Your task to perform on an android device: turn on the 24-hour format for clock Image 0: 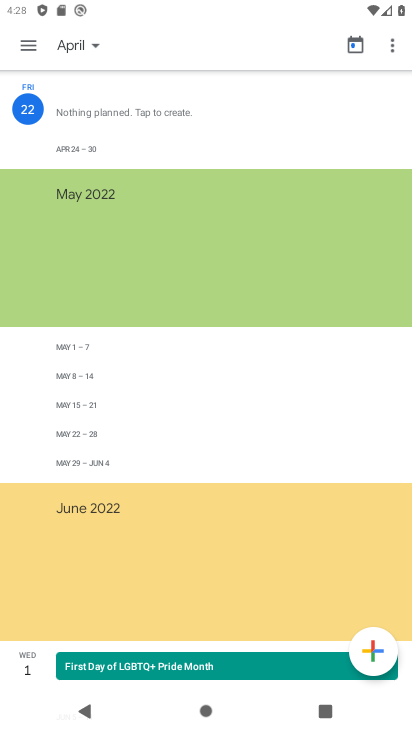
Step 0: press home button
Your task to perform on an android device: turn on the 24-hour format for clock Image 1: 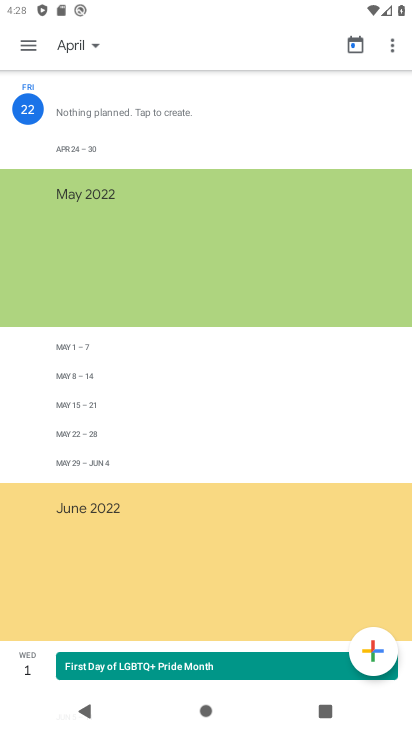
Step 1: press home button
Your task to perform on an android device: turn on the 24-hour format for clock Image 2: 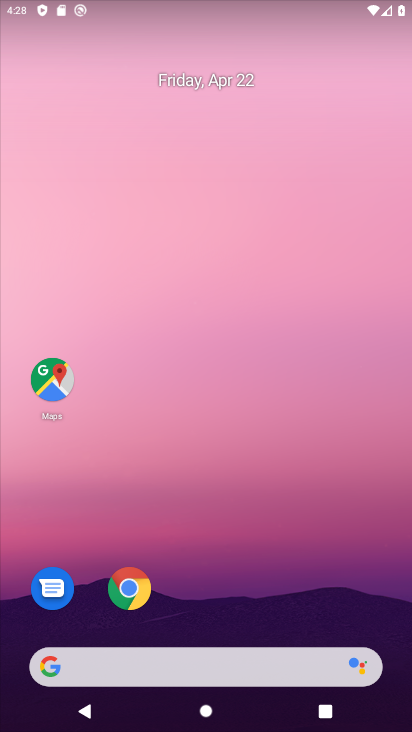
Step 2: drag from (261, 605) to (250, 79)
Your task to perform on an android device: turn on the 24-hour format for clock Image 3: 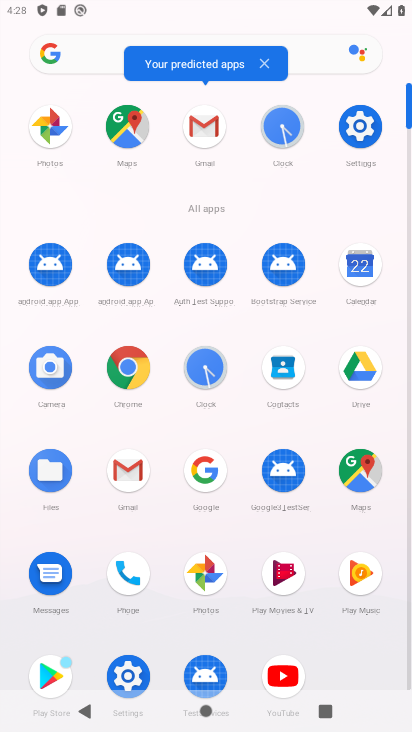
Step 3: click (285, 124)
Your task to perform on an android device: turn on the 24-hour format for clock Image 4: 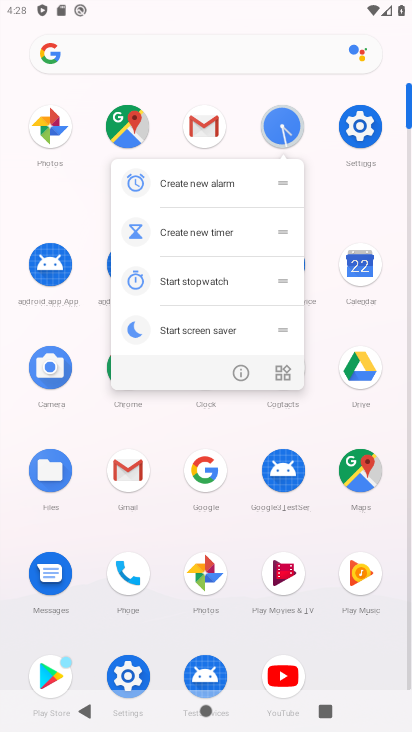
Step 4: click (276, 119)
Your task to perform on an android device: turn on the 24-hour format for clock Image 5: 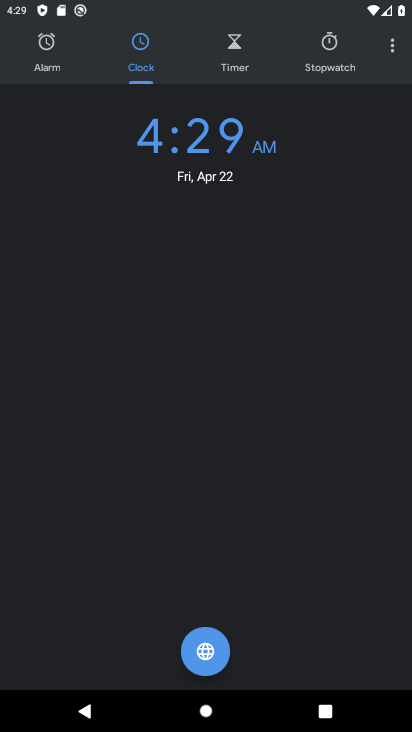
Step 5: click (396, 47)
Your task to perform on an android device: turn on the 24-hour format for clock Image 6: 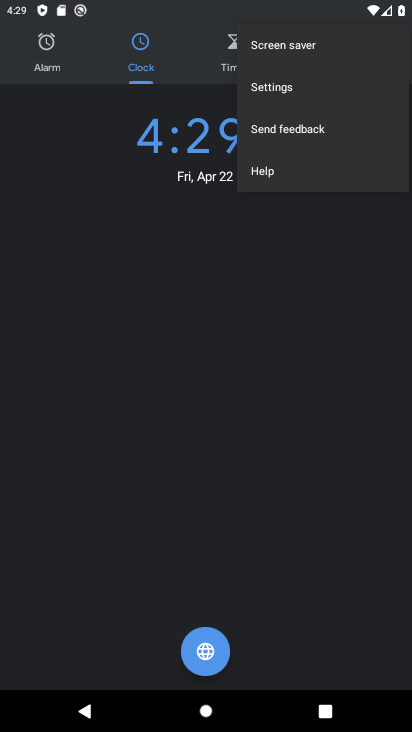
Step 6: click (311, 84)
Your task to perform on an android device: turn on the 24-hour format for clock Image 7: 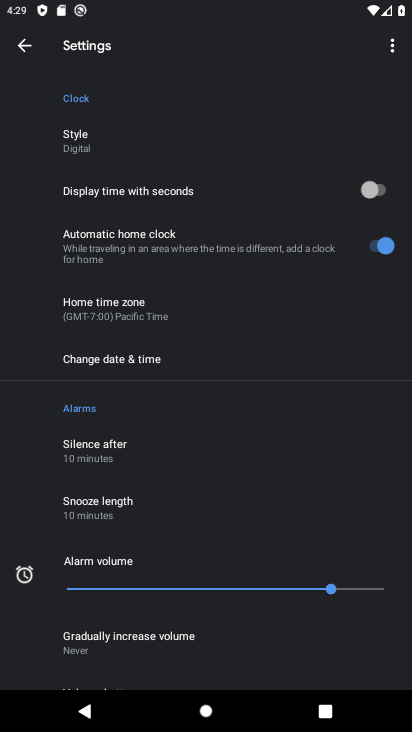
Step 7: click (140, 359)
Your task to perform on an android device: turn on the 24-hour format for clock Image 8: 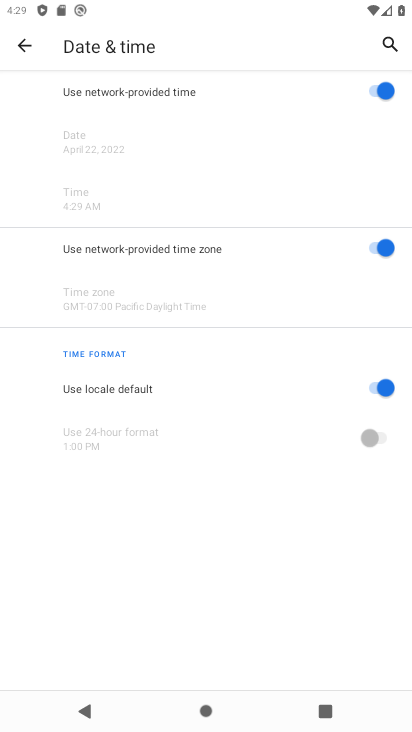
Step 8: click (383, 432)
Your task to perform on an android device: turn on the 24-hour format for clock Image 9: 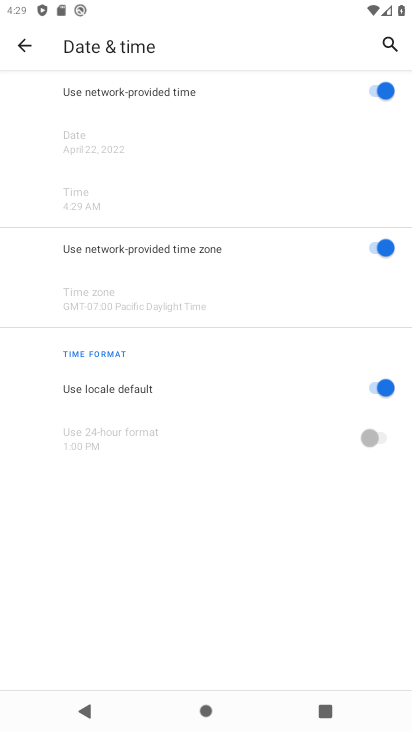
Step 9: click (375, 387)
Your task to perform on an android device: turn on the 24-hour format for clock Image 10: 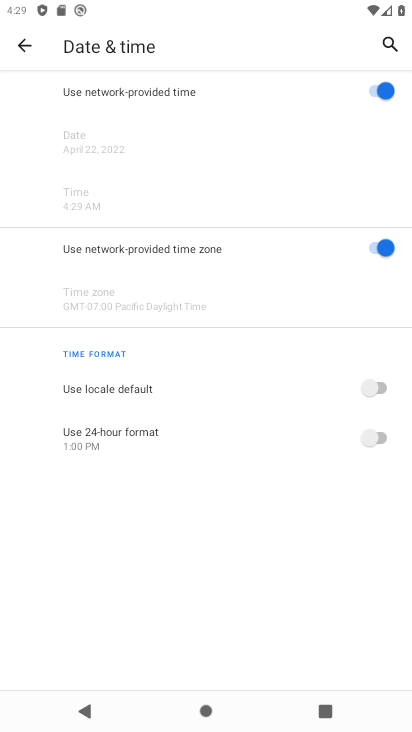
Step 10: click (378, 439)
Your task to perform on an android device: turn on the 24-hour format for clock Image 11: 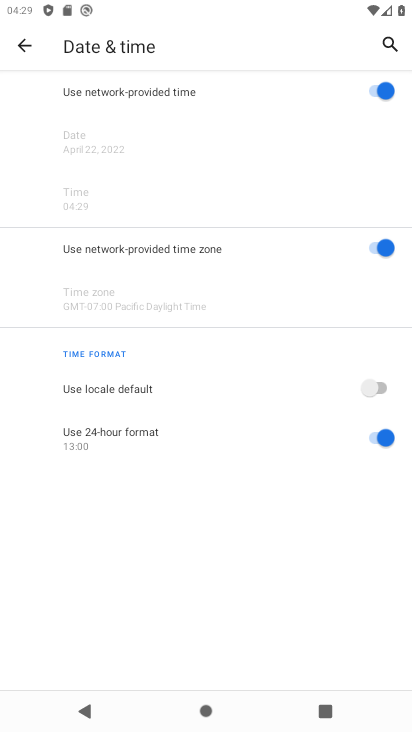
Step 11: task complete